Your task to perform on an android device: turn on notifications settings in the gmail app Image 0: 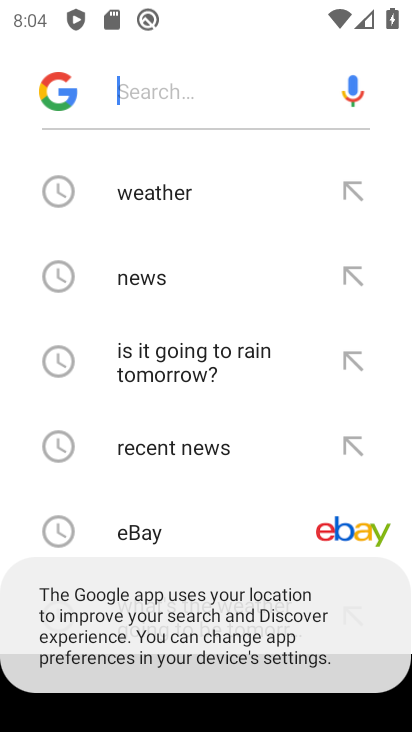
Step 0: press home button
Your task to perform on an android device: turn on notifications settings in the gmail app Image 1: 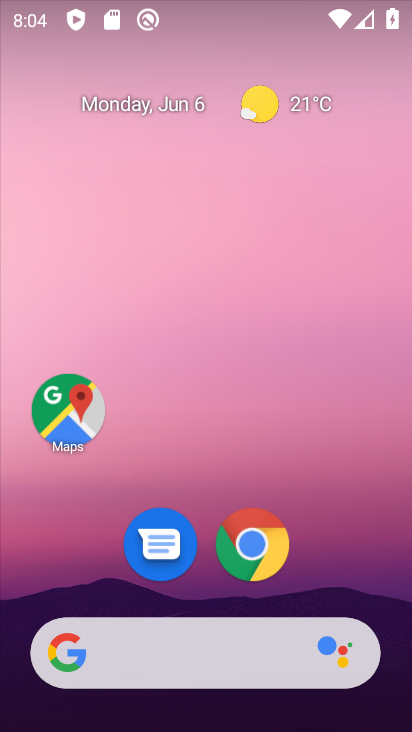
Step 1: drag from (208, 579) to (291, 206)
Your task to perform on an android device: turn on notifications settings in the gmail app Image 2: 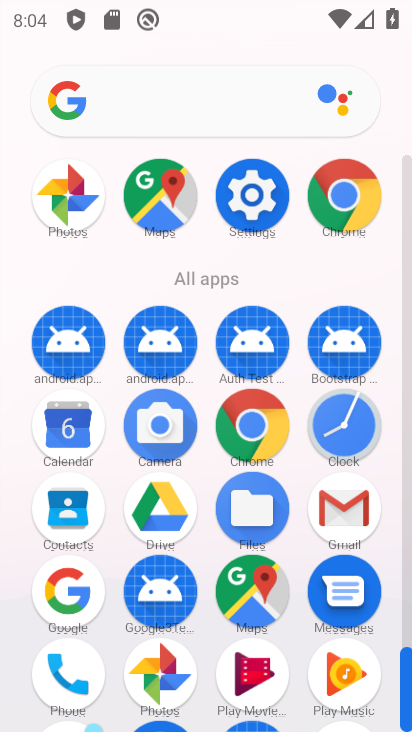
Step 2: click (353, 522)
Your task to perform on an android device: turn on notifications settings in the gmail app Image 3: 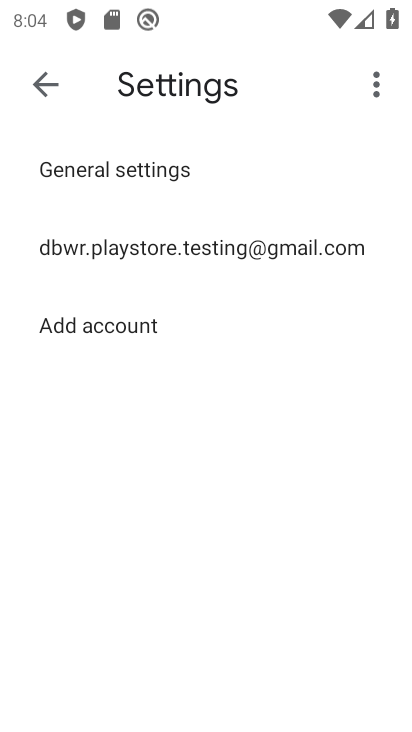
Step 3: click (219, 248)
Your task to perform on an android device: turn on notifications settings in the gmail app Image 4: 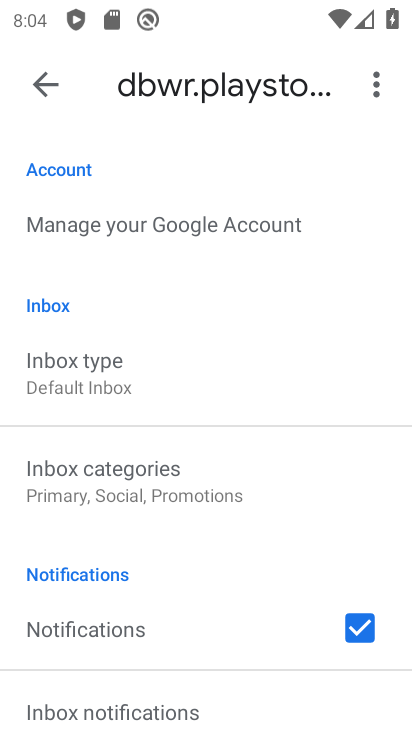
Step 4: drag from (113, 577) to (197, 248)
Your task to perform on an android device: turn on notifications settings in the gmail app Image 5: 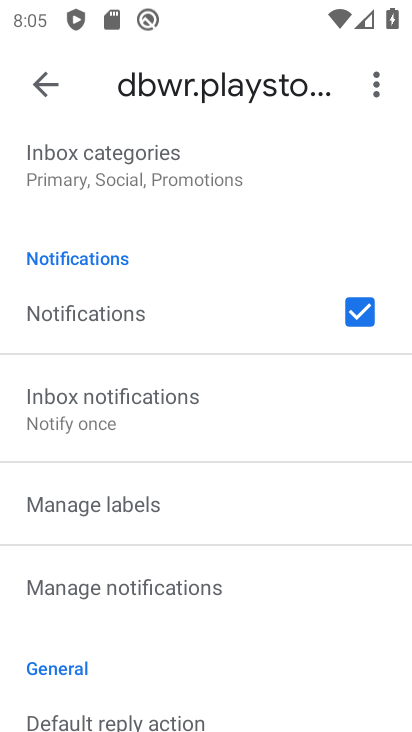
Step 5: click (178, 596)
Your task to perform on an android device: turn on notifications settings in the gmail app Image 6: 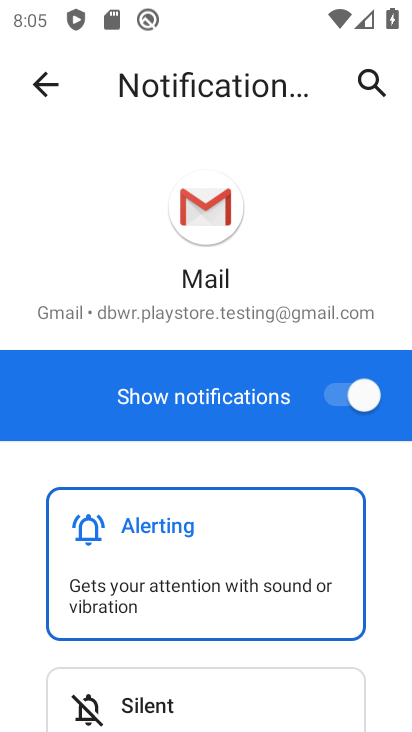
Step 6: task complete